Your task to perform on an android device: Go to eBay Image 0: 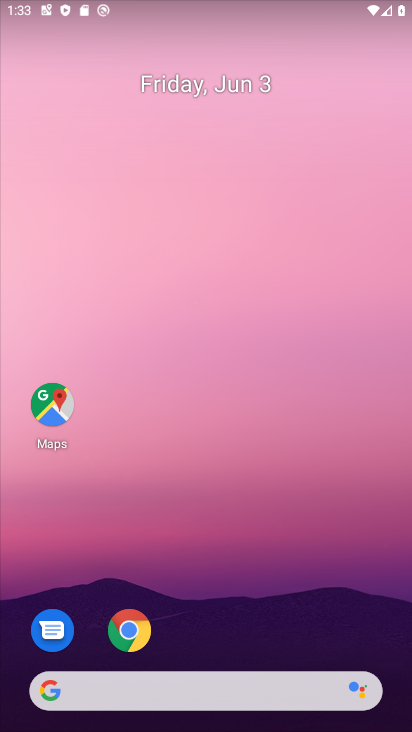
Step 0: click (129, 635)
Your task to perform on an android device: Go to eBay Image 1: 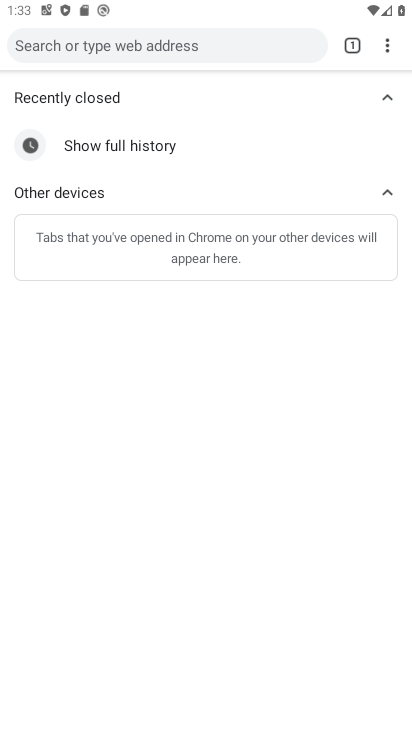
Step 1: click (389, 48)
Your task to perform on an android device: Go to eBay Image 2: 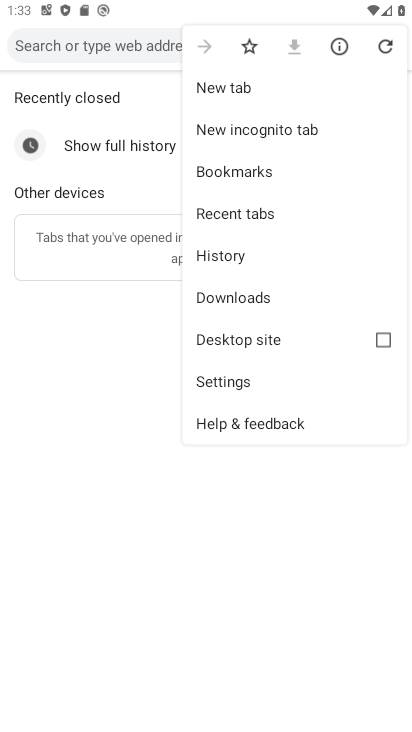
Step 2: click (213, 91)
Your task to perform on an android device: Go to eBay Image 3: 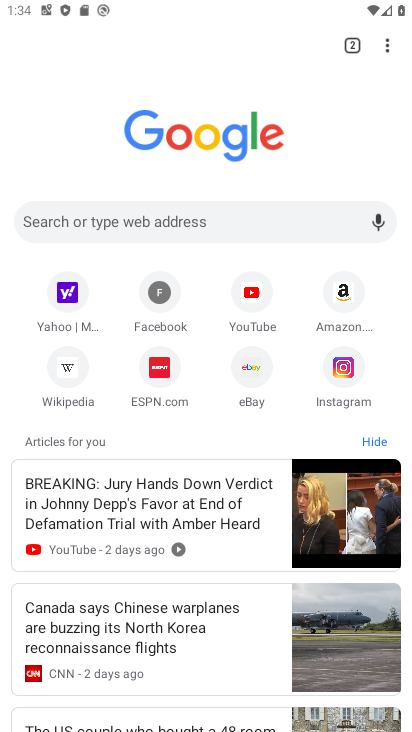
Step 3: click (251, 364)
Your task to perform on an android device: Go to eBay Image 4: 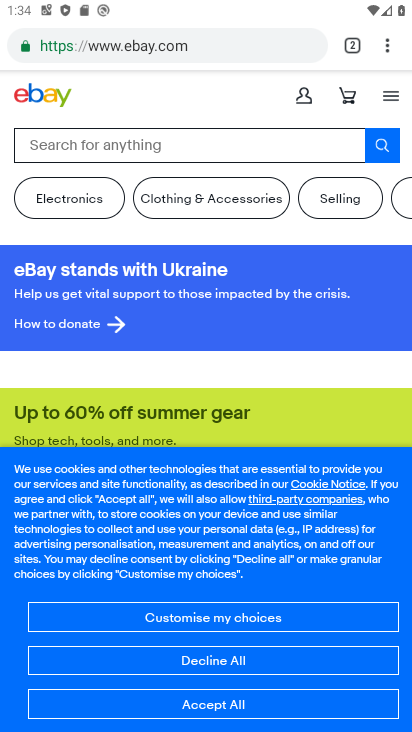
Step 4: task complete